Your task to perform on an android device: Show me the alarms in the clock app Image 0: 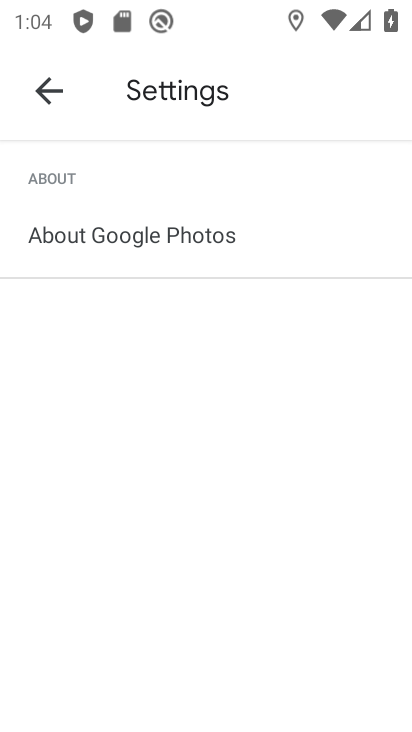
Step 0: press home button
Your task to perform on an android device: Show me the alarms in the clock app Image 1: 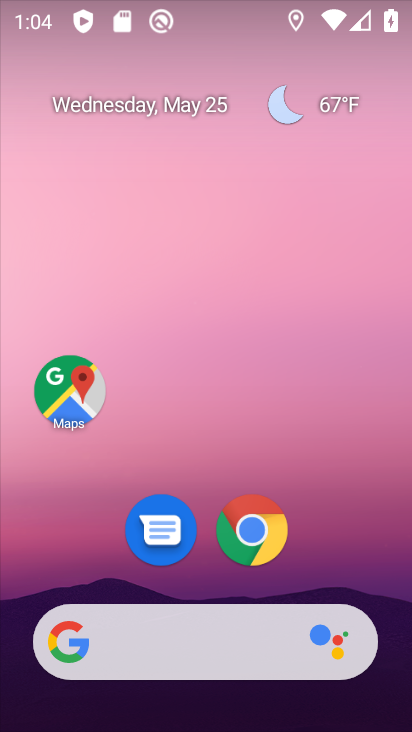
Step 1: drag from (319, 539) to (239, 196)
Your task to perform on an android device: Show me the alarms in the clock app Image 2: 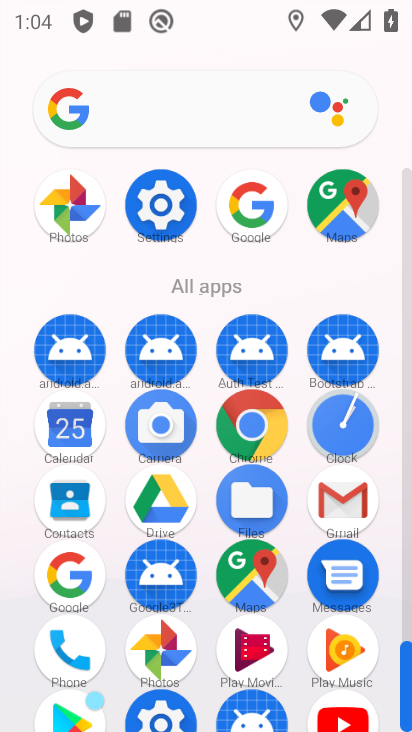
Step 2: click (342, 425)
Your task to perform on an android device: Show me the alarms in the clock app Image 3: 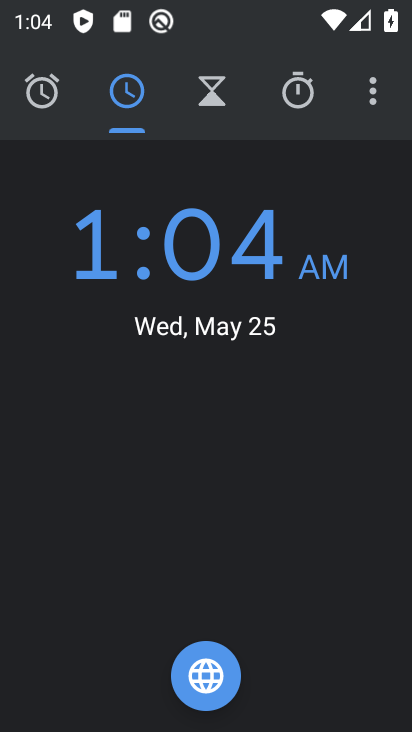
Step 3: click (41, 96)
Your task to perform on an android device: Show me the alarms in the clock app Image 4: 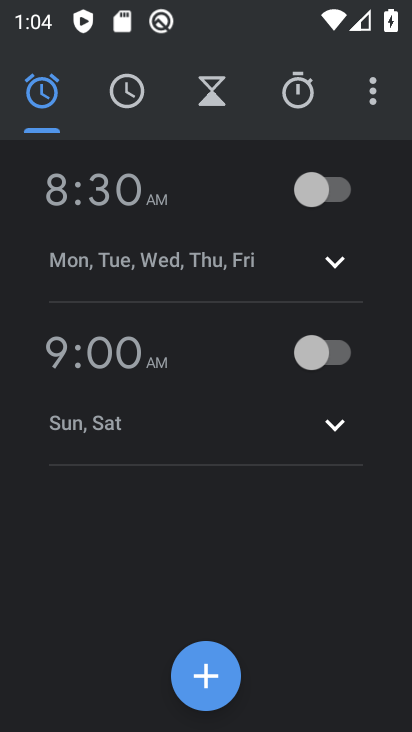
Step 4: task complete